Your task to perform on an android device: Open Google Image 0: 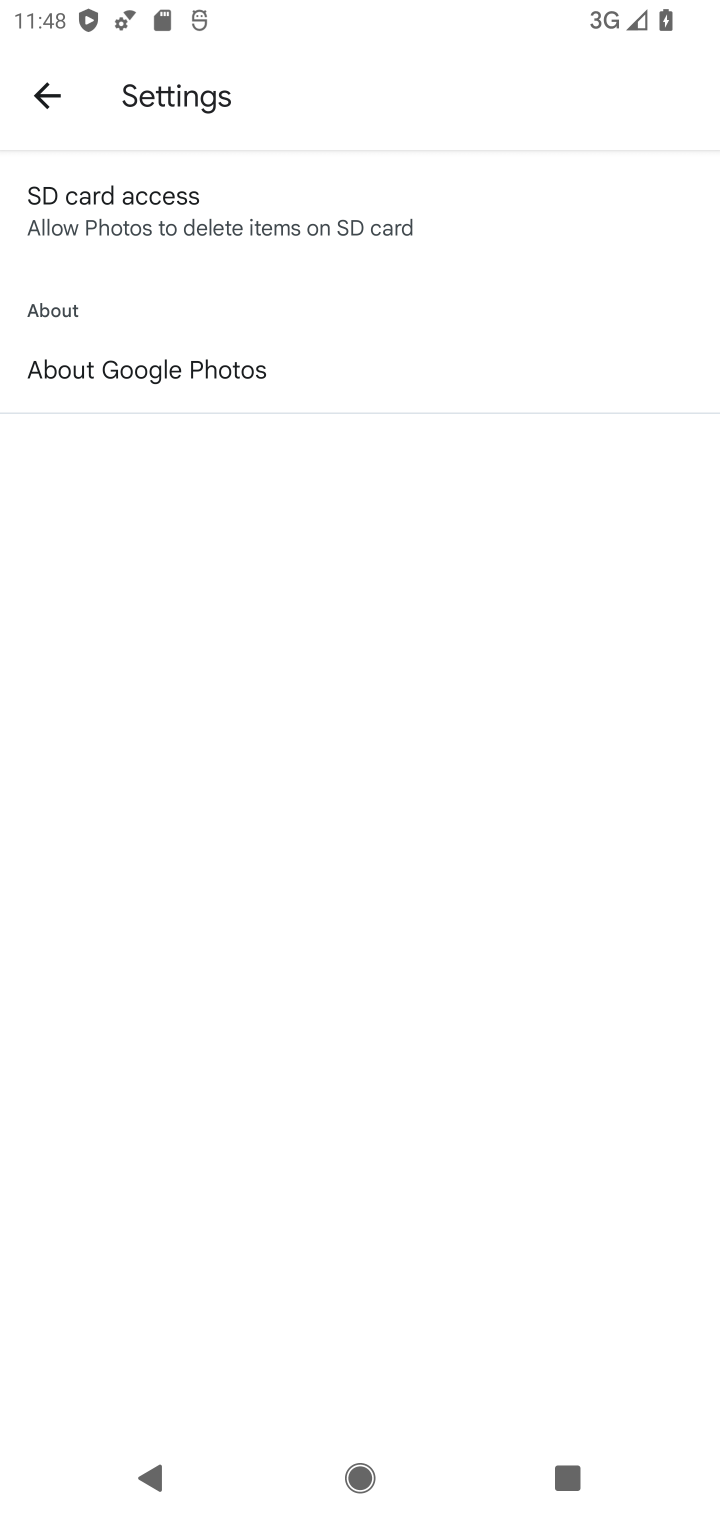
Step 0: press home button
Your task to perform on an android device: Open Google Image 1: 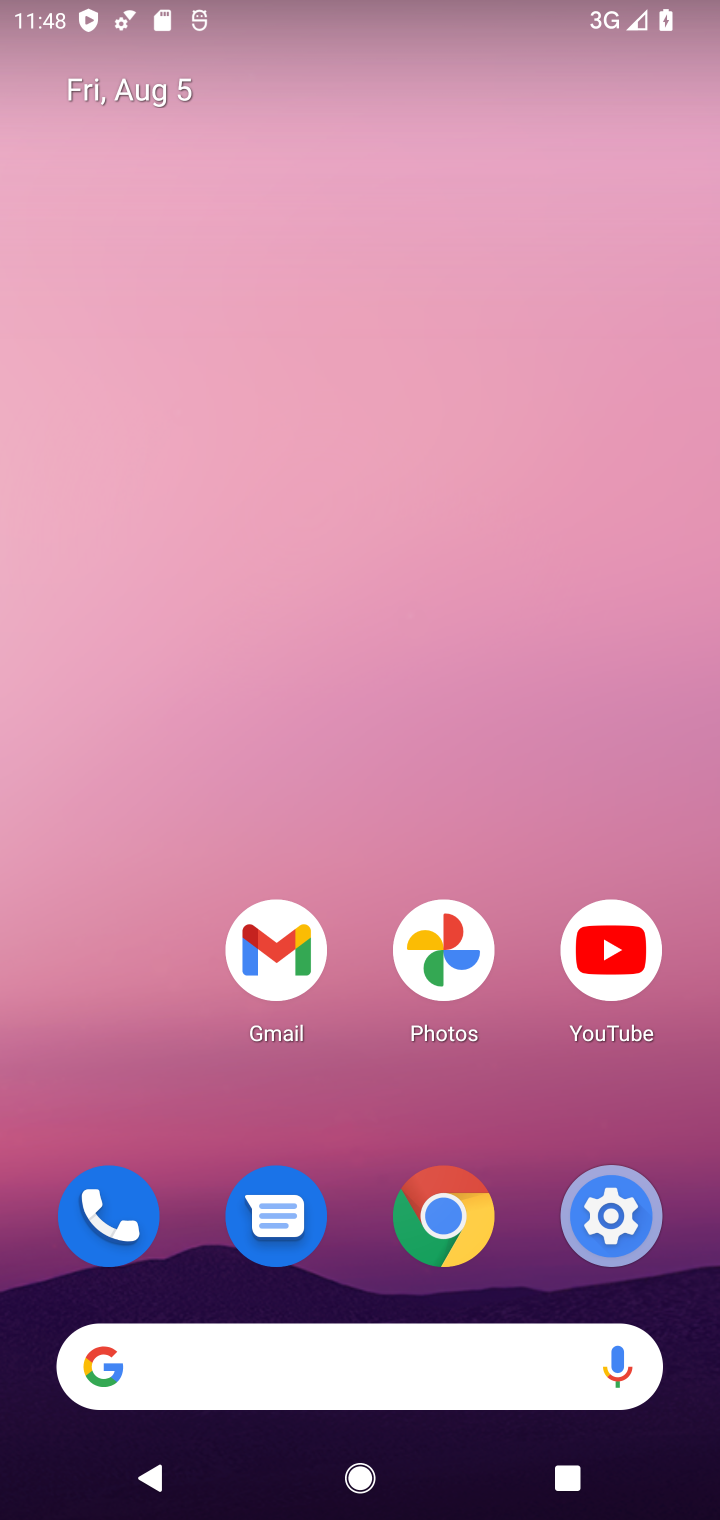
Step 1: drag from (538, 1384) to (538, 277)
Your task to perform on an android device: Open Google Image 2: 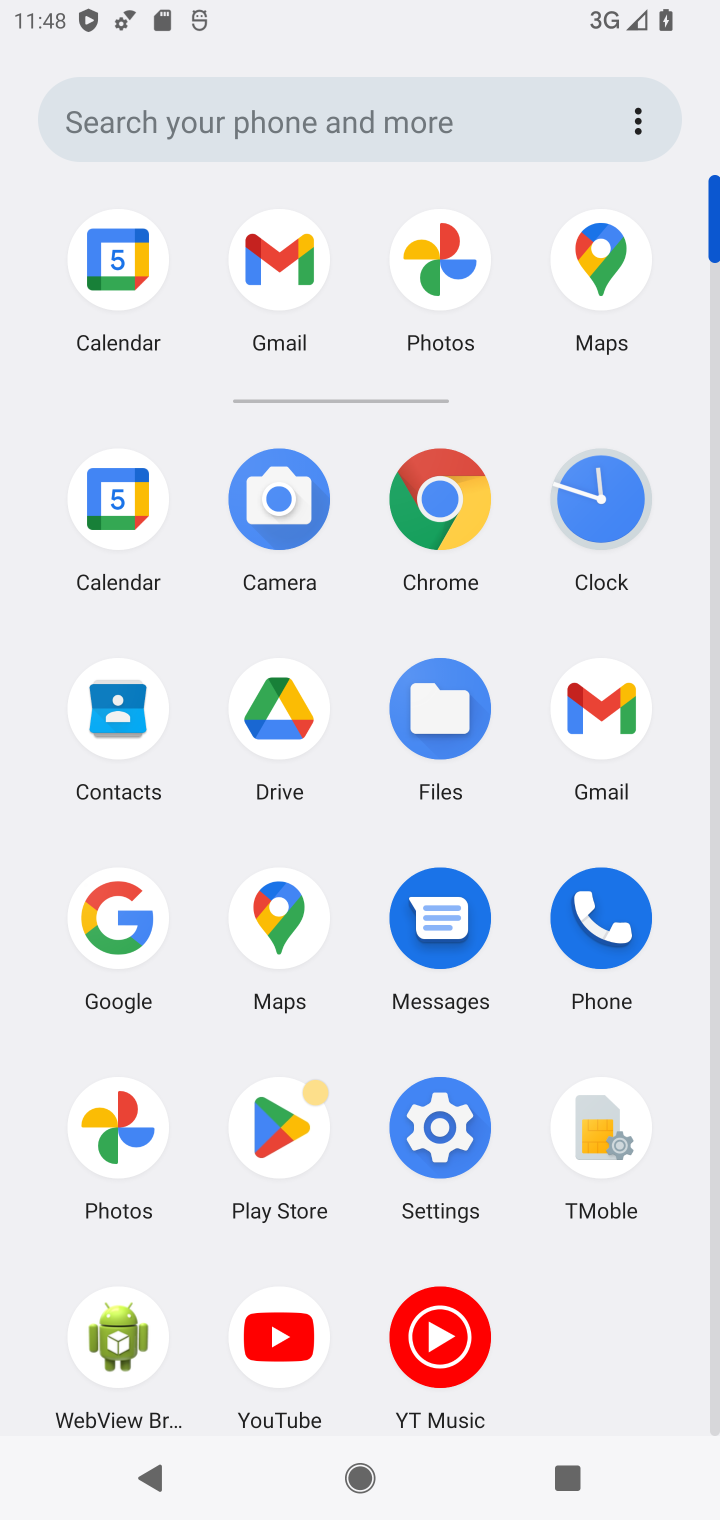
Step 2: click (437, 521)
Your task to perform on an android device: Open Google Image 3: 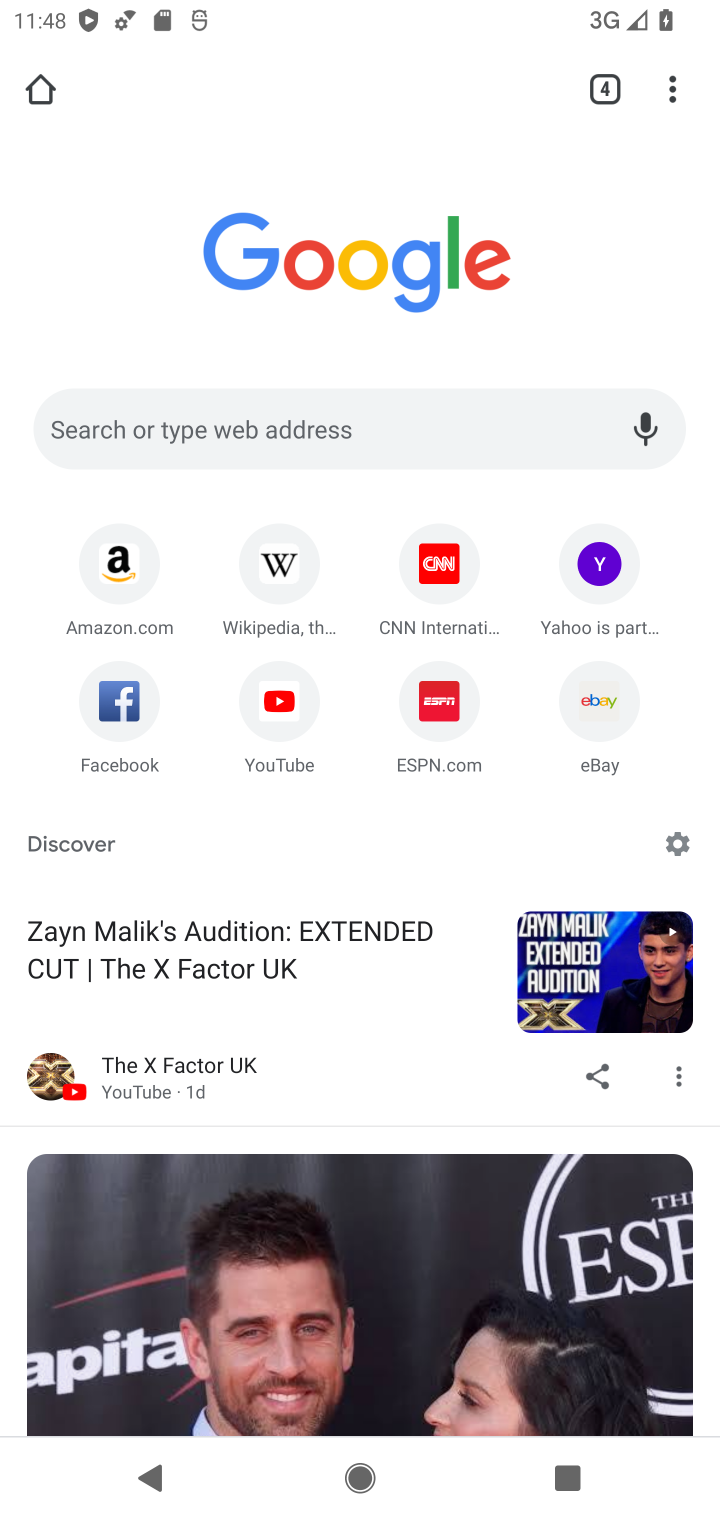
Step 3: task complete